Your task to perform on an android device: Look up the best rated gaming chairs on Target. Image 0: 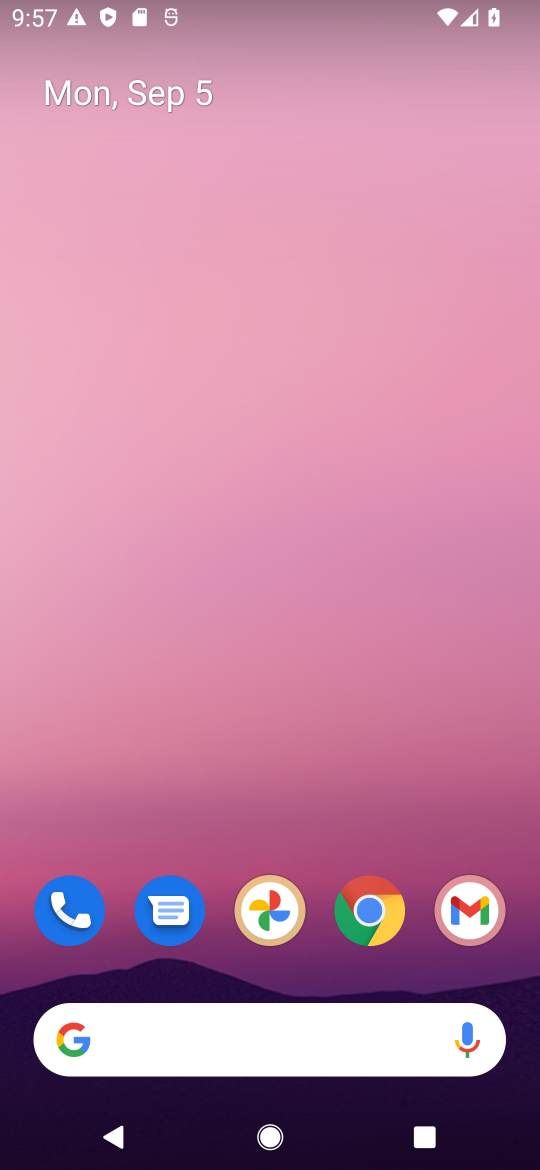
Step 0: click (349, 975)
Your task to perform on an android device: Look up the best rated gaming chairs on Target. Image 1: 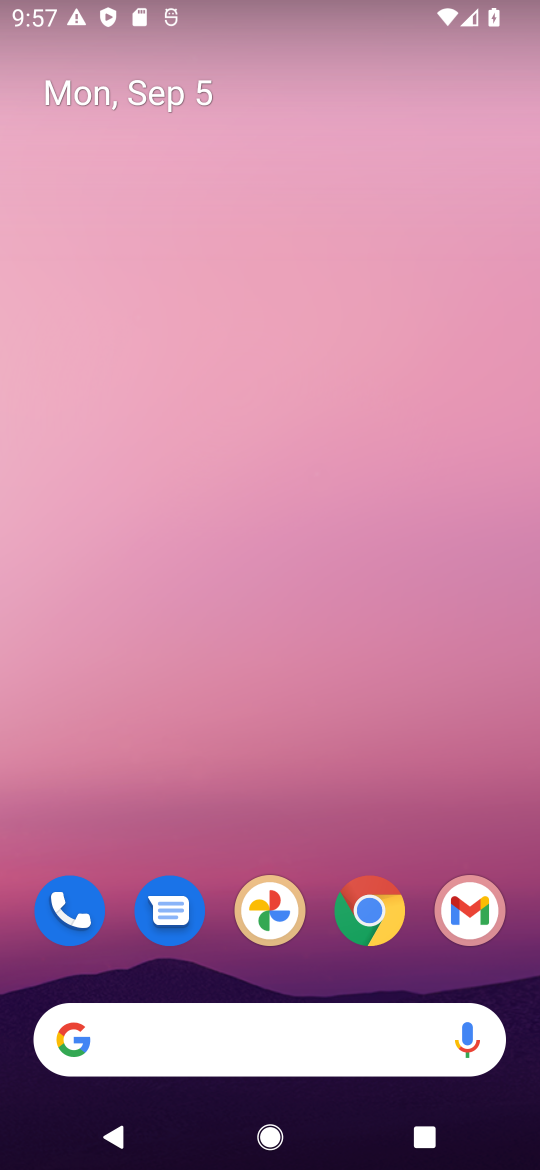
Step 1: click (367, 908)
Your task to perform on an android device: Look up the best rated gaming chairs on Target. Image 2: 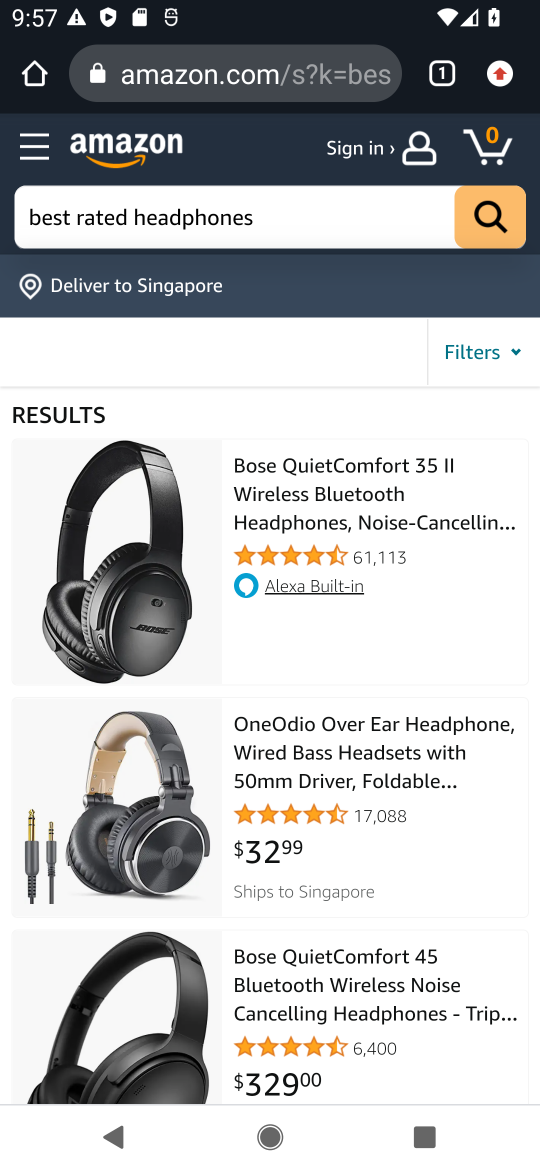
Step 2: click (257, 81)
Your task to perform on an android device: Look up the best rated gaming chairs on Target. Image 3: 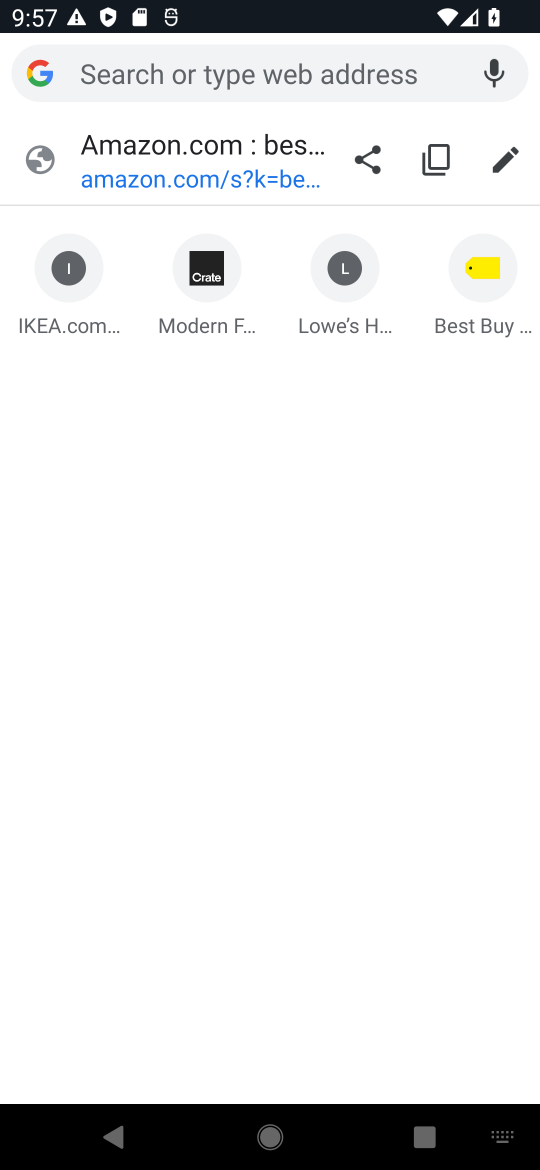
Step 3: type "target"
Your task to perform on an android device: Look up the best rated gaming chairs on Target. Image 4: 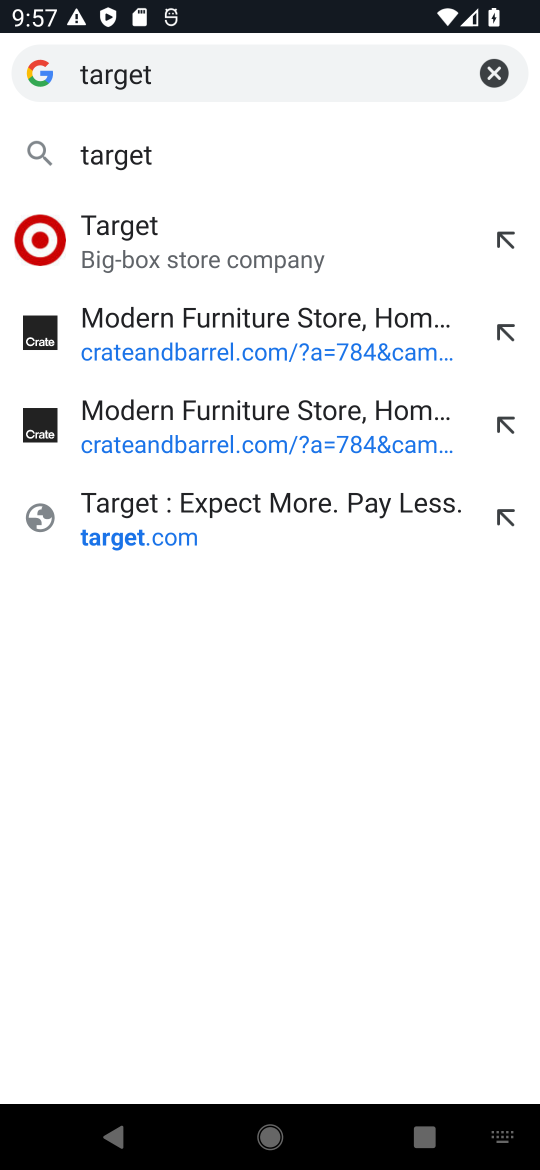
Step 4: click (336, 534)
Your task to perform on an android device: Look up the best rated gaming chairs on Target. Image 5: 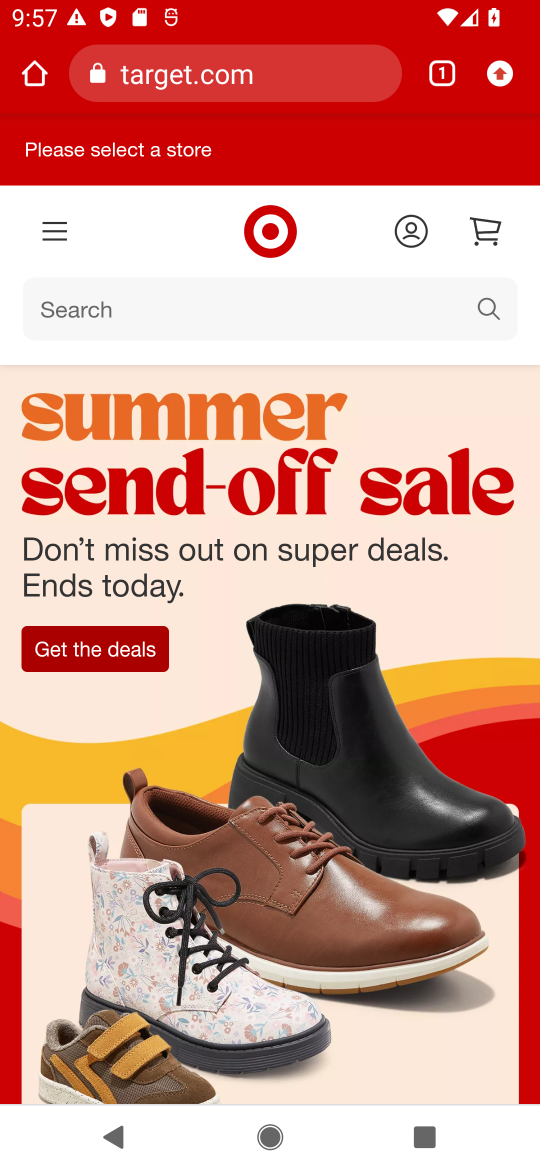
Step 5: click (182, 303)
Your task to perform on an android device: Look up the best rated gaming chairs on Target. Image 6: 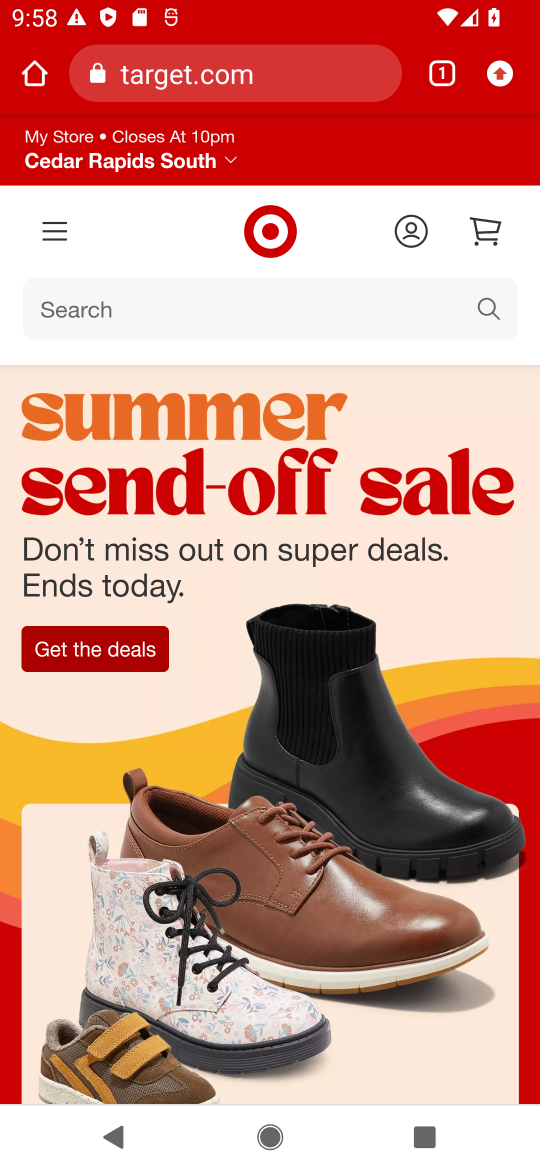
Step 6: click (347, 332)
Your task to perform on an android device: Look up the best rated gaming chairs on Target. Image 7: 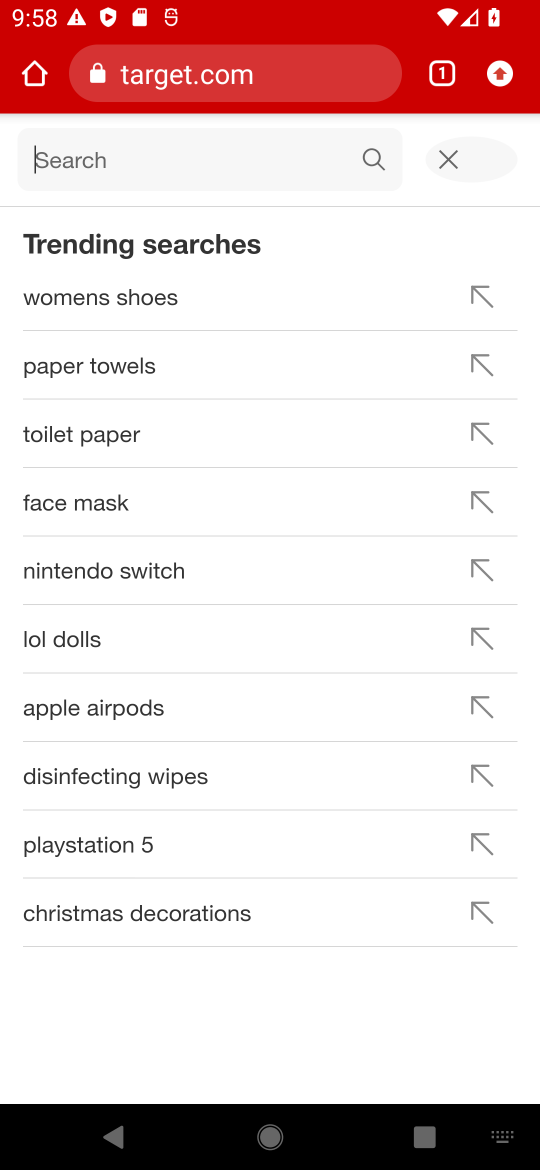
Step 7: type "best rated gaming chair\"
Your task to perform on an android device: Look up the best rated gaming chairs on Target. Image 8: 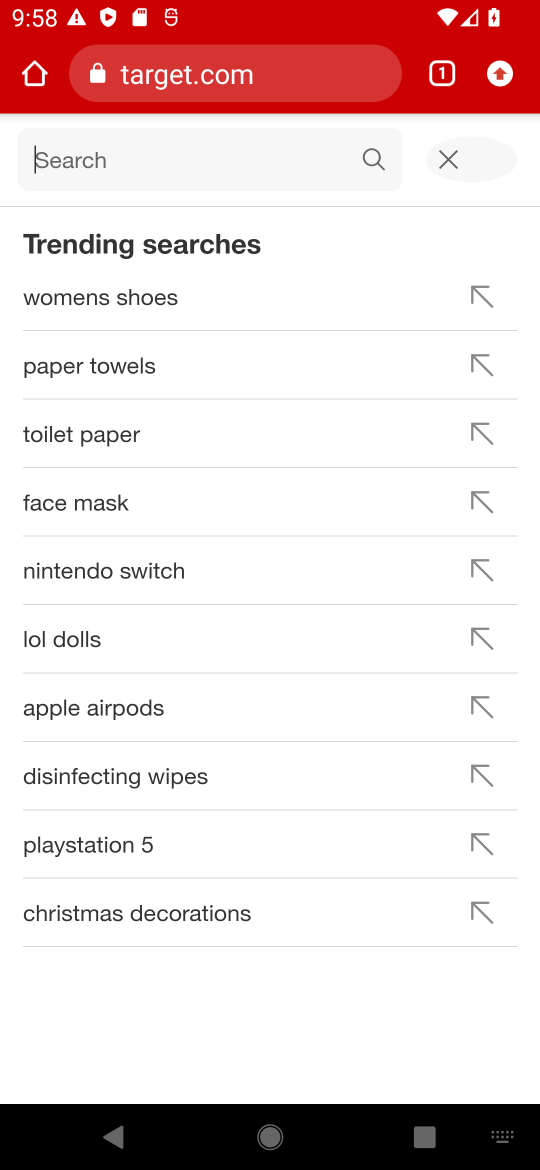
Step 8: type "best rated gaming chair"
Your task to perform on an android device: Look up the best rated gaming chairs on Target. Image 9: 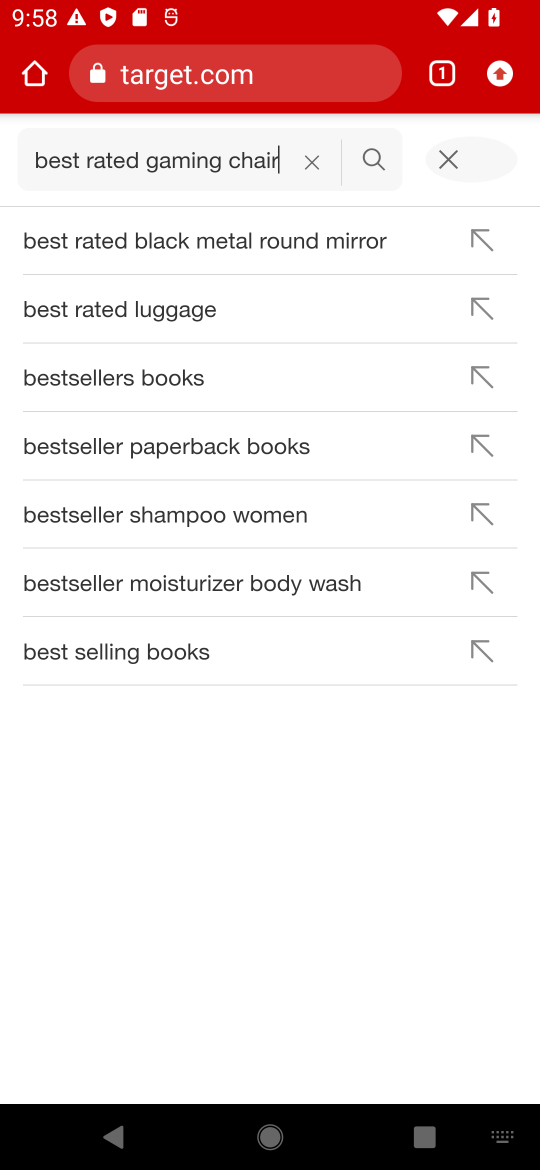
Step 9: press enter
Your task to perform on an android device: Look up the best rated gaming chairs on Target. Image 10: 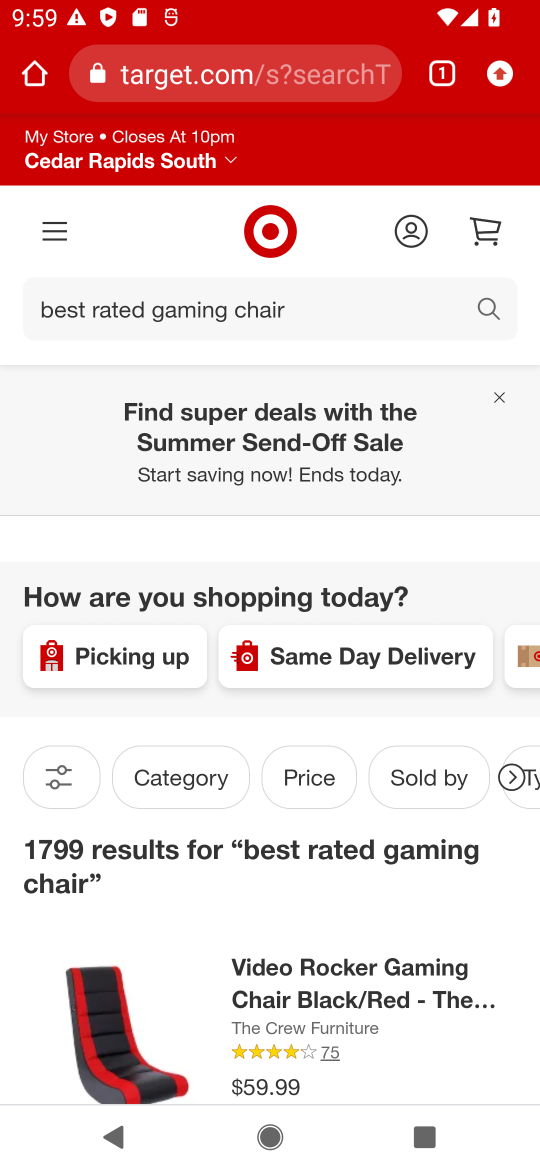
Step 10: task complete